Your task to perform on an android device: Go to notification settings Image 0: 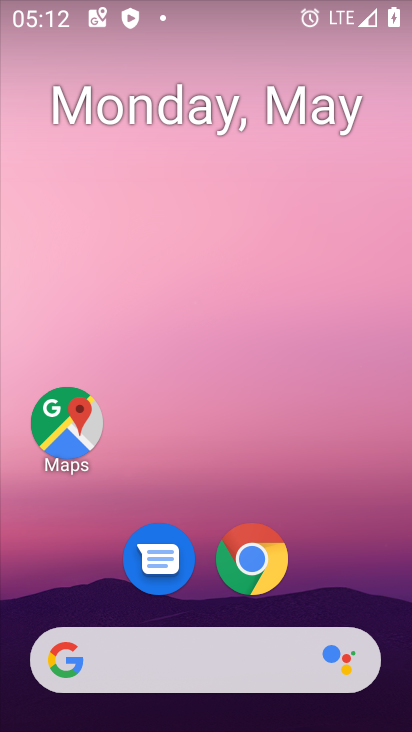
Step 0: drag from (221, 637) to (202, 19)
Your task to perform on an android device: Go to notification settings Image 1: 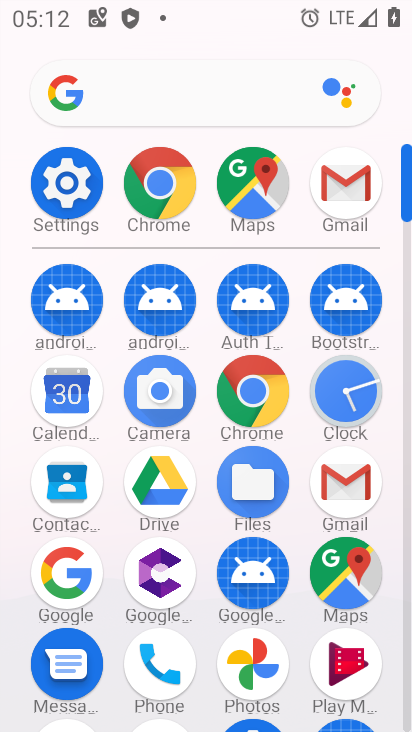
Step 1: click (69, 204)
Your task to perform on an android device: Go to notification settings Image 2: 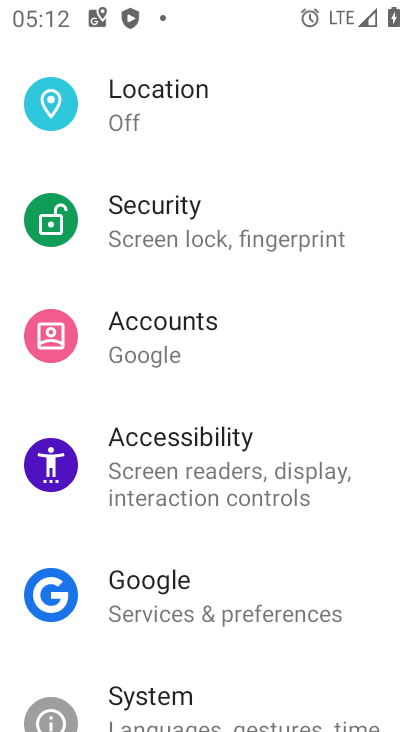
Step 2: drag from (223, 227) to (261, 717)
Your task to perform on an android device: Go to notification settings Image 3: 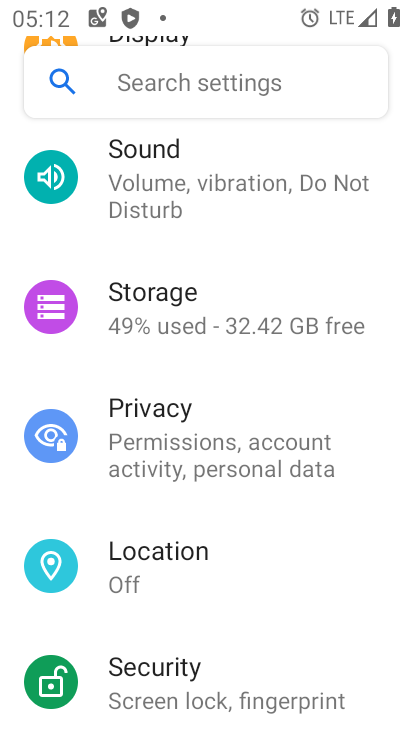
Step 3: drag from (212, 215) to (231, 731)
Your task to perform on an android device: Go to notification settings Image 4: 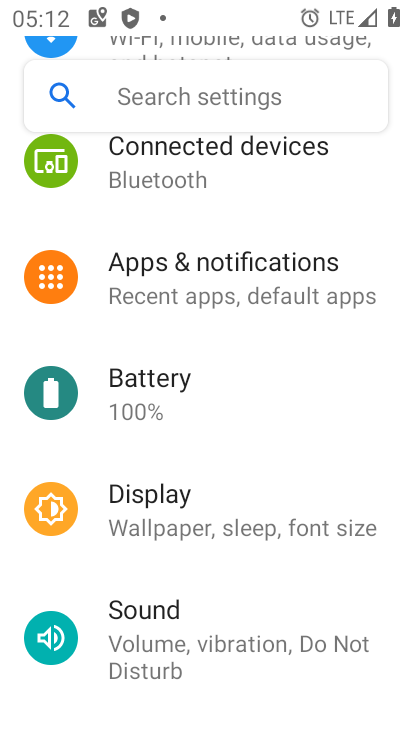
Step 4: click (262, 267)
Your task to perform on an android device: Go to notification settings Image 5: 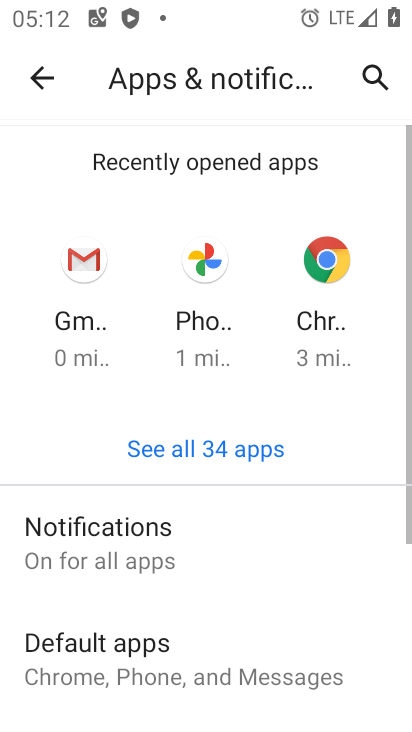
Step 5: task complete